Your task to perform on an android device: check the backup settings in the google photos Image 0: 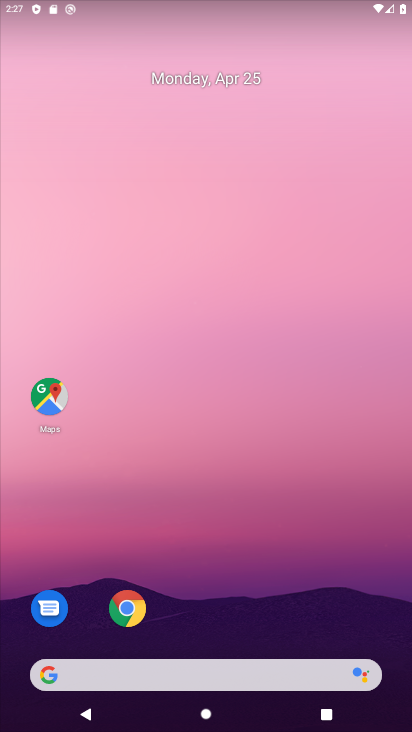
Step 0: drag from (367, 628) to (388, 147)
Your task to perform on an android device: check the backup settings in the google photos Image 1: 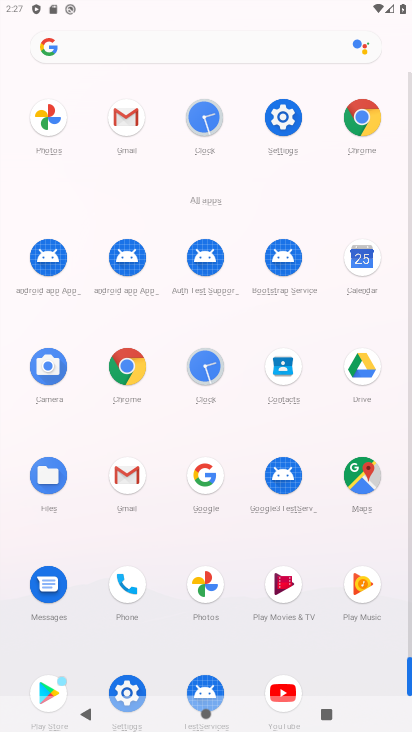
Step 1: click (189, 585)
Your task to perform on an android device: check the backup settings in the google photos Image 2: 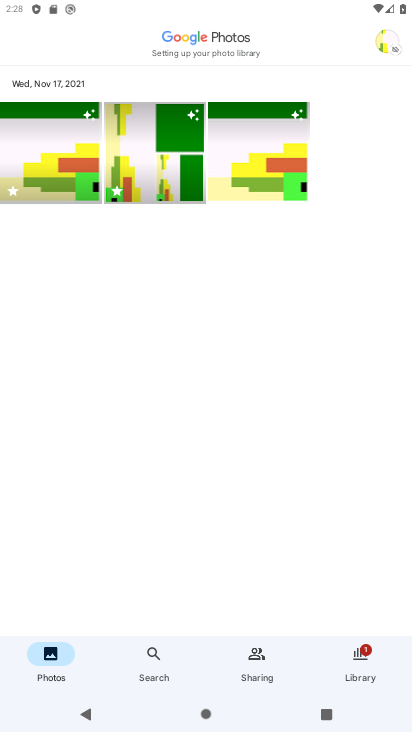
Step 2: click (379, 41)
Your task to perform on an android device: check the backup settings in the google photos Image 3: 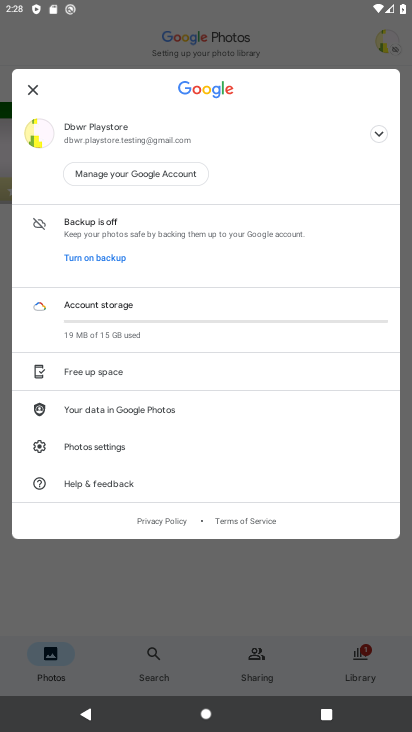
Step 3: drag from (281, 428) to (296, 293)
Your task to perform on an android device: check the backup settings in the google photos Image 4: 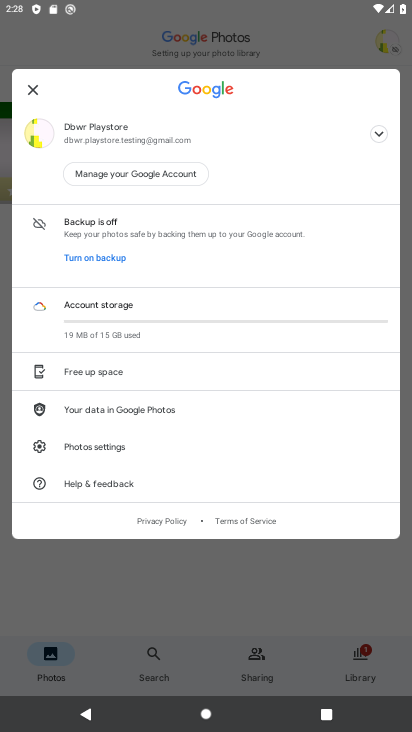
Step 4: click (98, 251)
Your task to perform on an android device: check the backup settings in the google photos Image 5: 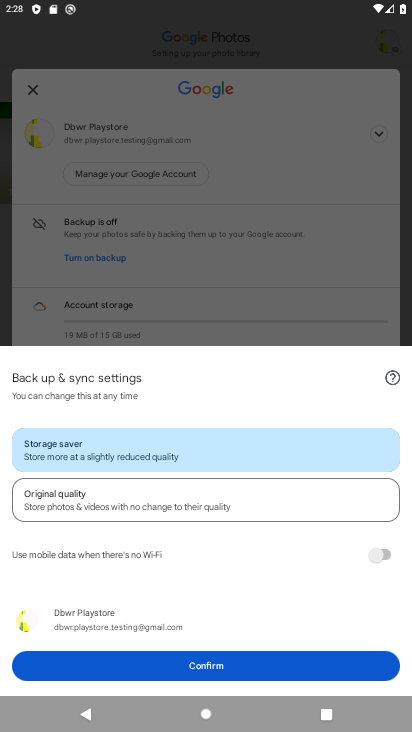
Step 5: click (230, 668)
Your task to perform on an android device: check the backup settings in the google photos Image 6: 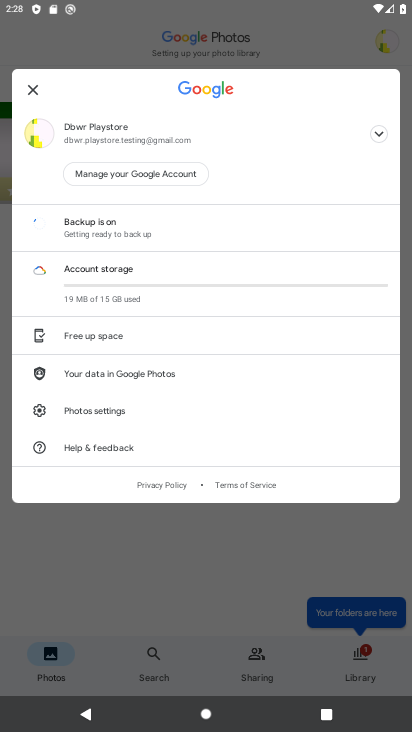
Step 6: task complete